Your task to perform on an android device: Go to Maps Image 0: 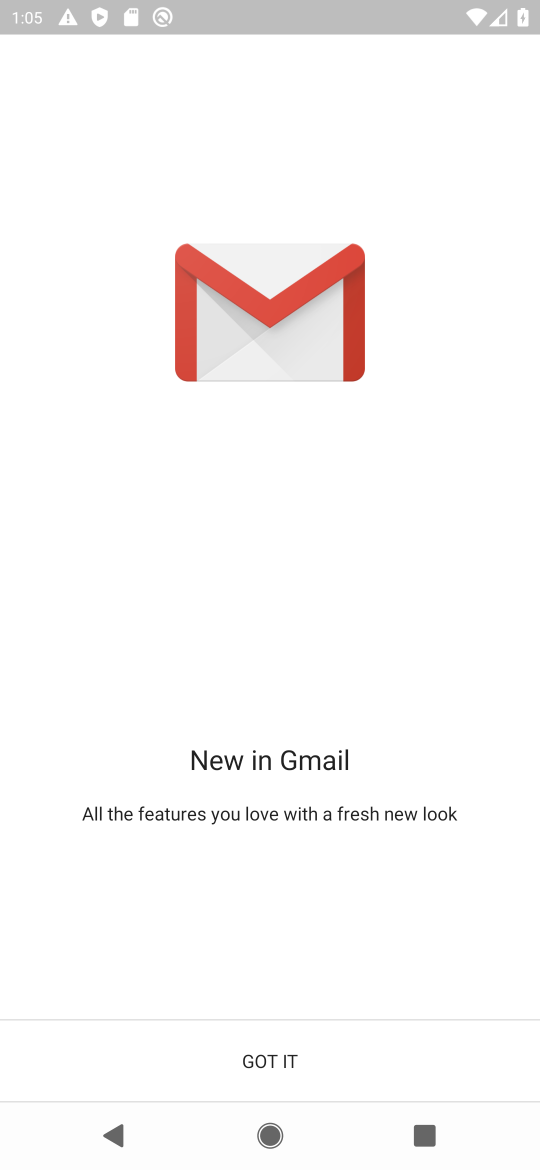
Step 0: press home button
Your task to perform on an android device: Go to Maps Image 1: 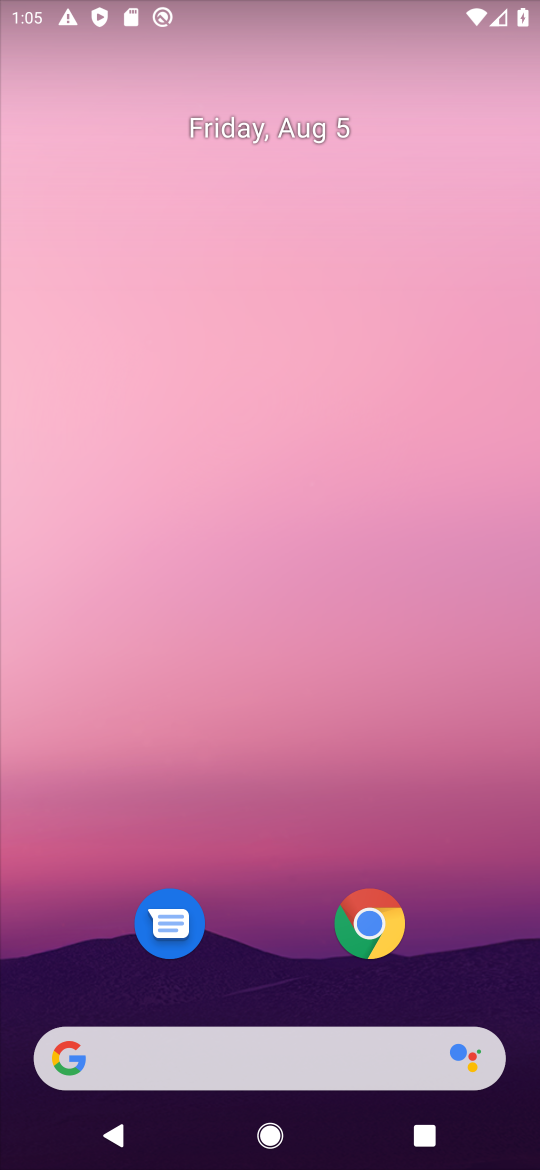
Step 1: drag from (269, 991) to (205, 90)
Your task to perform on an android device: Go to Maps Image 2: 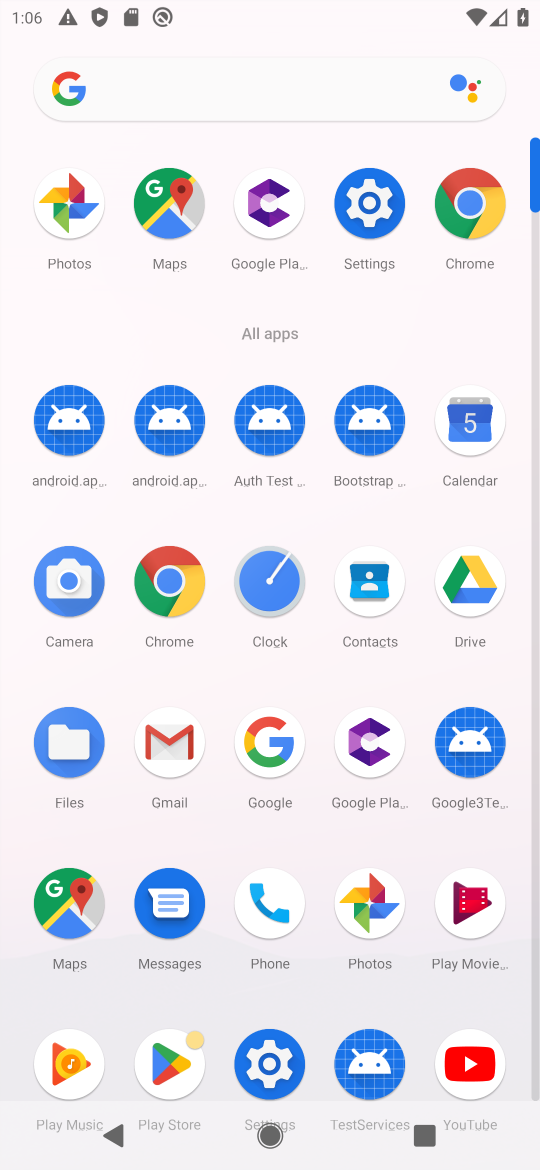
Step 2: click (66, 932)
Your task to perform on an android device: Go to Maps Image 3: 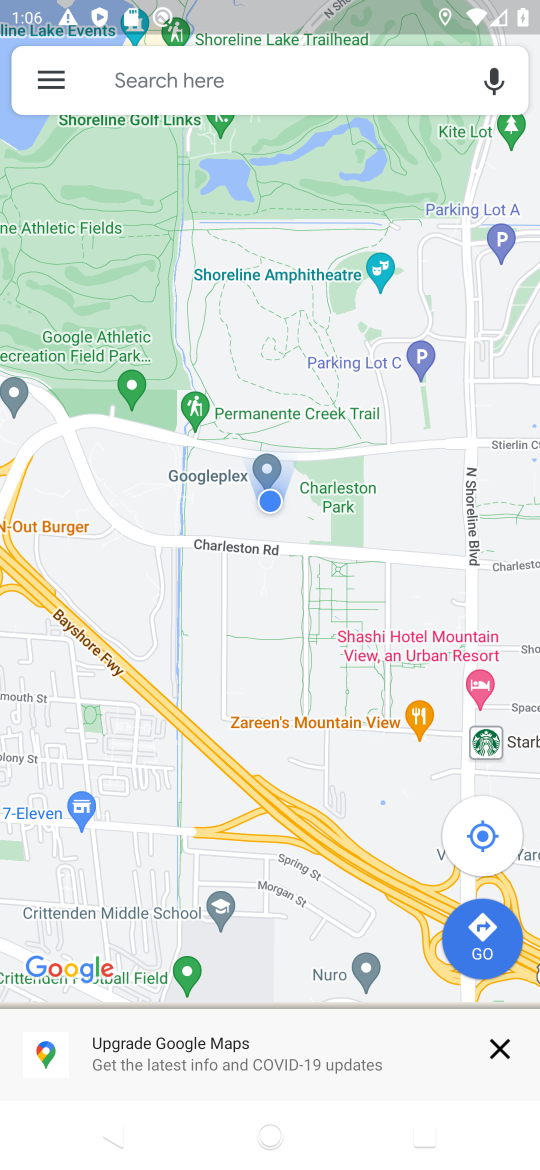
Step 3: click (496, 1050)
Your task to perform on an android device: Go to Maps Image 4: 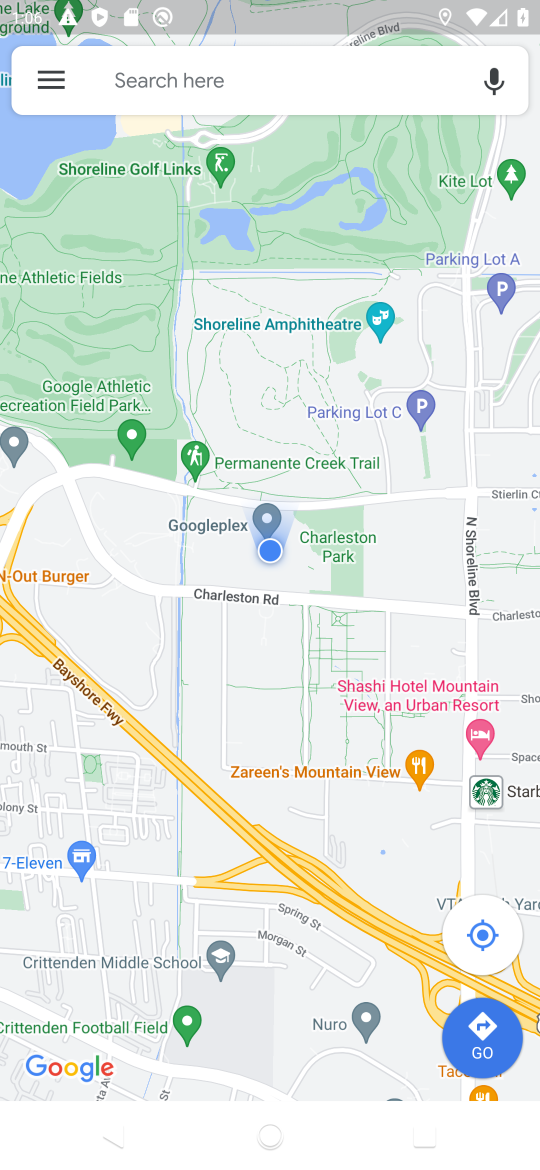
Step 4: task complete